Your task to perform on an android device: check out phone information Image 0: 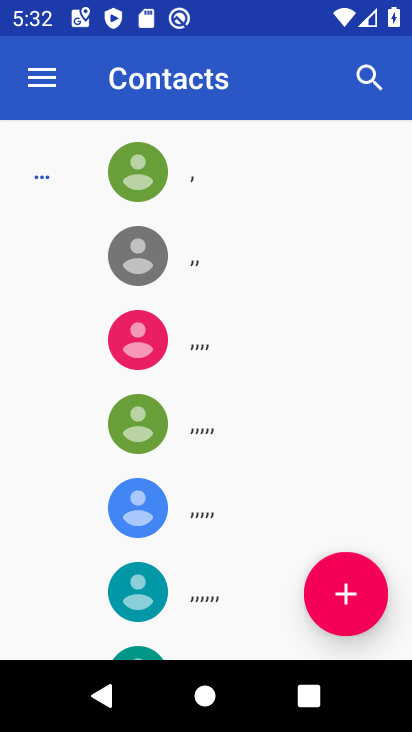
Step 0: press home button
Your task to perform on an android device: check out phone information Image 1: 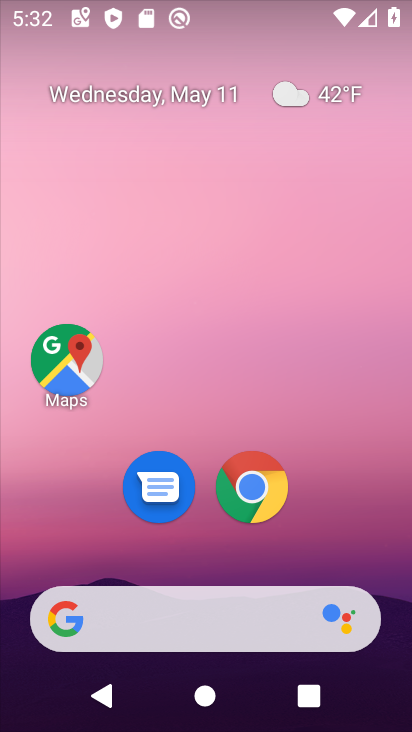
Step 1: drag from (290, 560) to (306, 8)
Your task to perform on an android device: check out phone information Image 2: 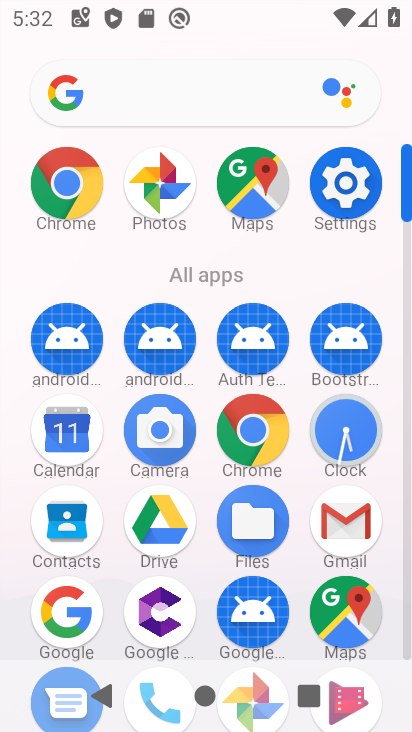
Step 2: click (349, 216)
Your task to perform on an android device: check out phone information Image 3: 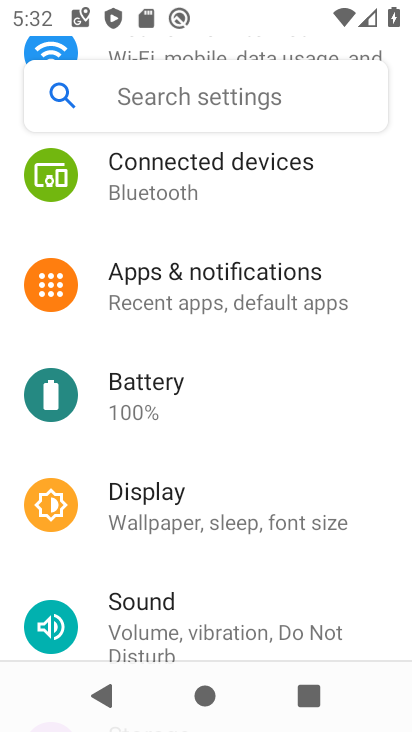
Step 3: drag from (219, 504) to (282, 160)
Your task to perform on an android device: check out phone information Image 4: 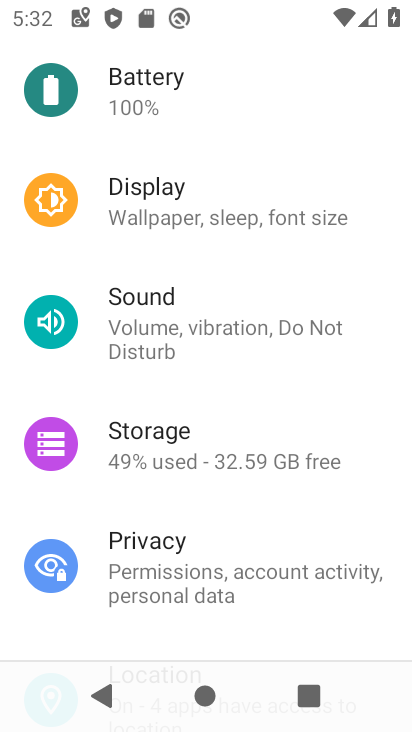
Step 4: drag from (169, 500) to (240, 93)
Your task to perform on an android device: check out phone information Image 5: 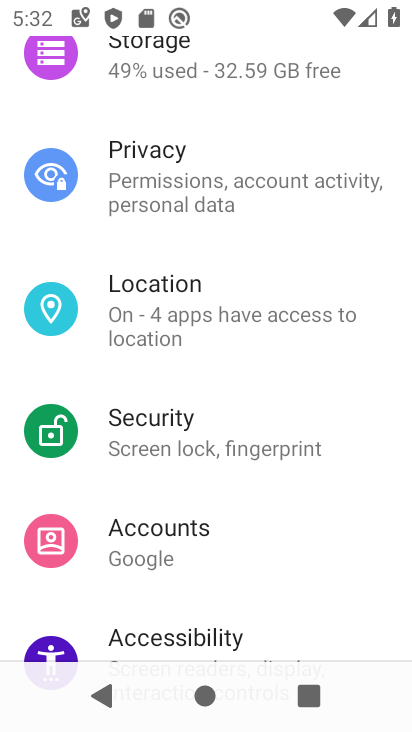
Step 5: drag from (157, 609) to (280, 8)
Your task to perform on an android device: check out phone information Image 6: 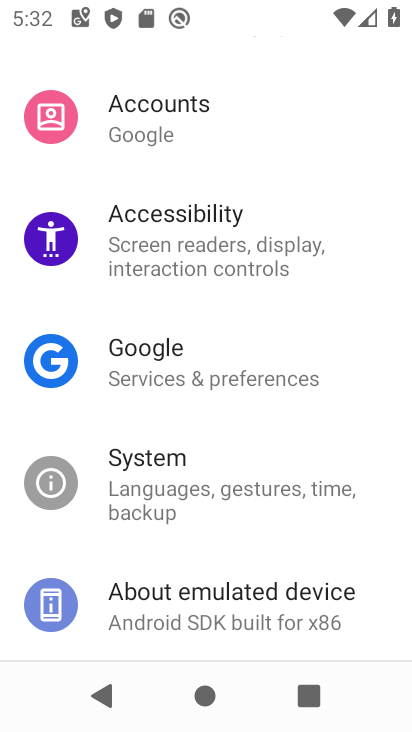
Step 6: click (191, 583)
Your task to perform on an android device: check out phone information Image 7: 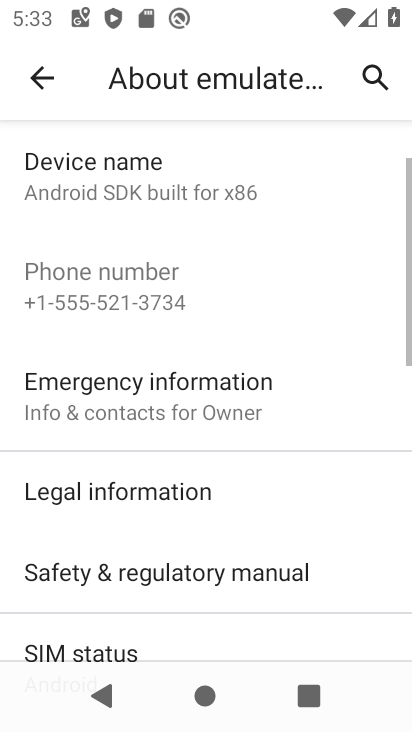
Step 7: task complete